Your task to perform on an android device: turn off improve location accuracy Image 0: 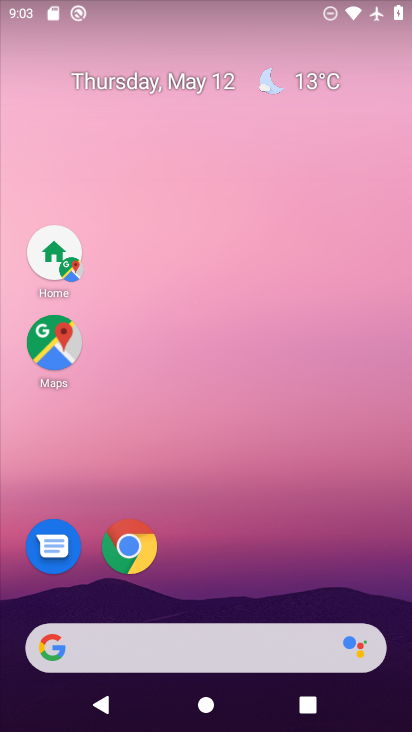
Step 0: drag from (202, 647) to (270, 111)
Your task to perform on an android device: turn off improve location accuracy Image 1: 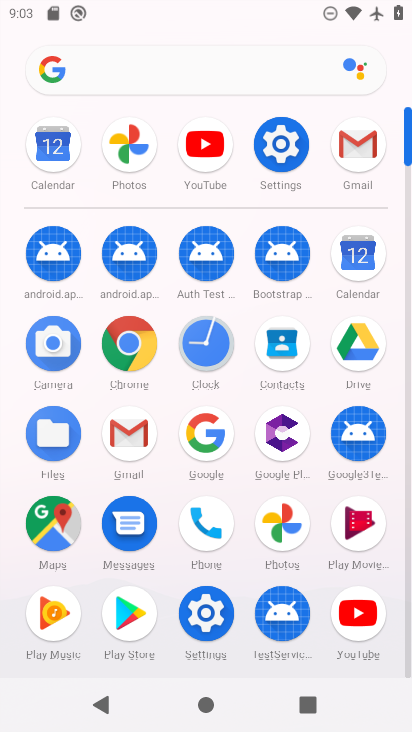
Step 1: click (275, 145)
Your task to perform on an android device: turn off improve location accuracy Image 2: 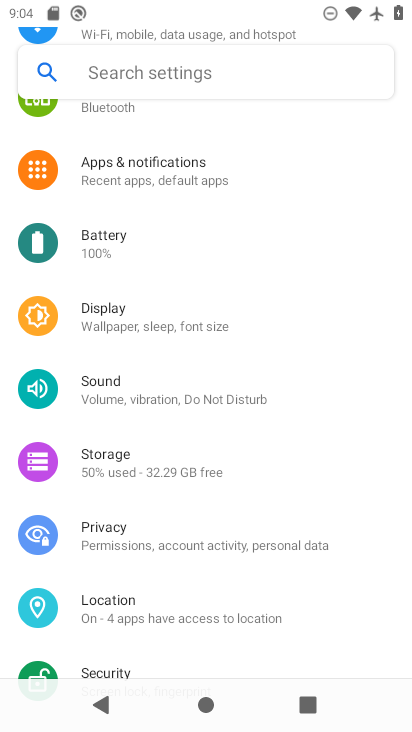
Step 2: click (150, 609)
Your task to perform on an android device: turn off improve location accuracy Image 3: 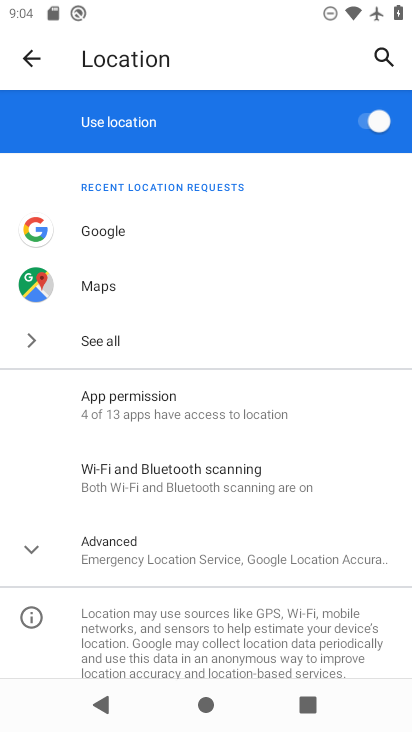
Step 3: click (169, 556)
Your task to perform on an android device: turn off improve location accuracy Image 4: 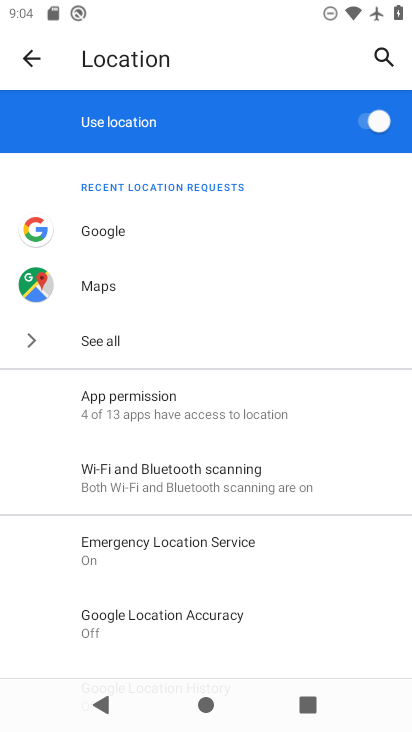
Step 4: click (156, 616)
Your task to perform on an android device: turn off improve location accuracy Image 5: 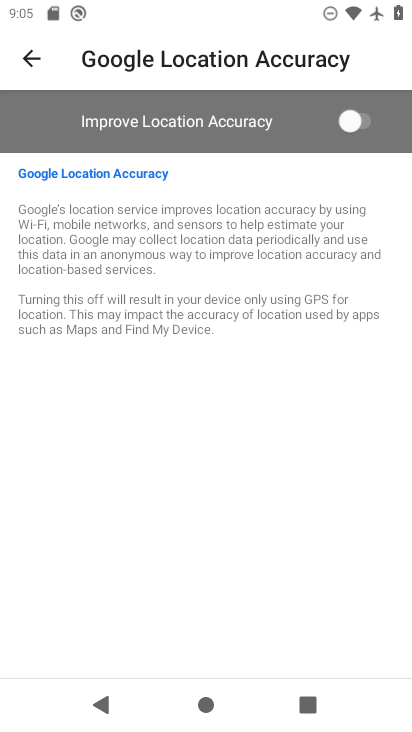
Step 5: task complete